Your task to perform on an android device: change the upload size in google photos Image 0: 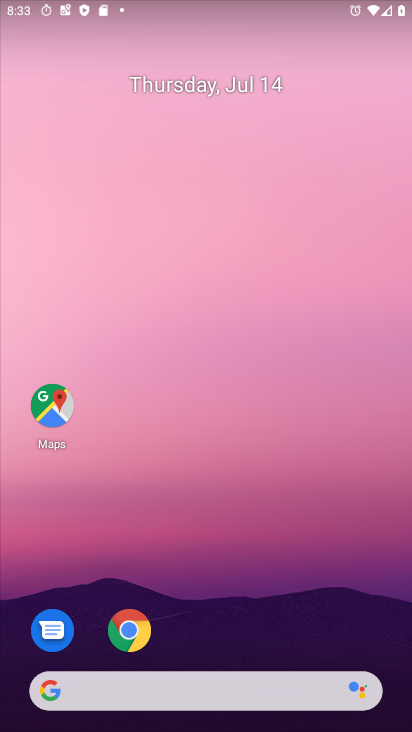
Step 0: drag from (185, 715) to (166, 169)
Your task to perform on an android device: change the upload size in google photos Image 1: 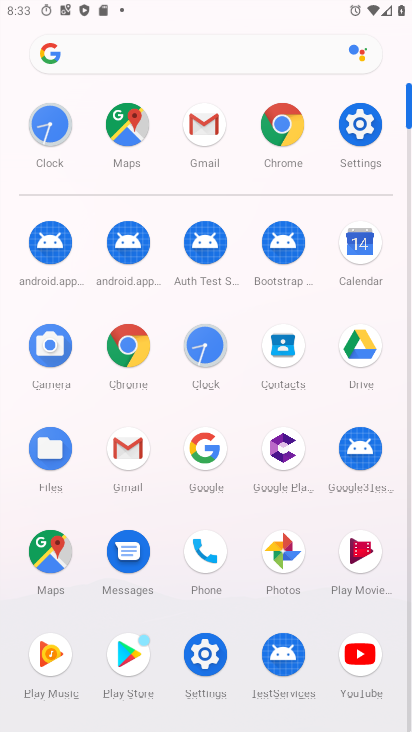
Step 1: click (290, 548)
Your task to perform on an android device: change the upload size in google photos Image 2: 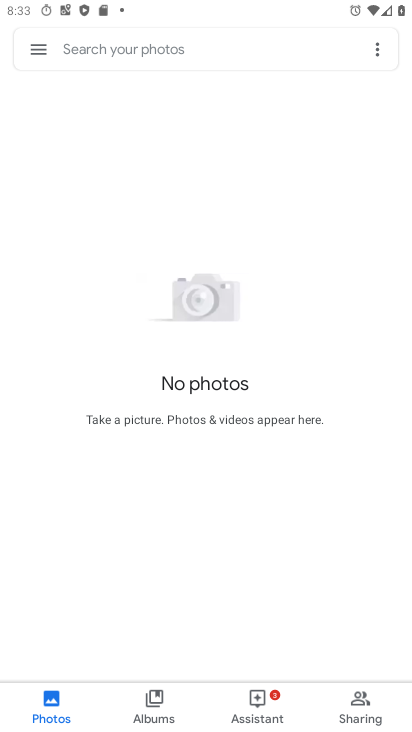
Step 2: click (32, 48)
Your task to perform on an android device: change the upload size in google photos Image 3: 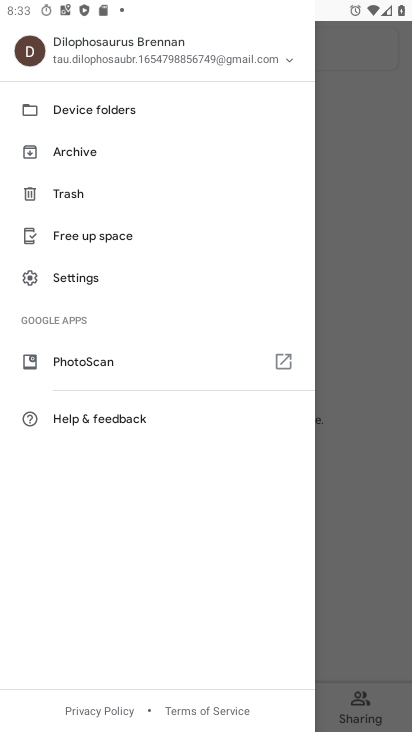
Step 3: click (83, 277)
Your task to perform on an android device: change the upload size in google photos Image 4: 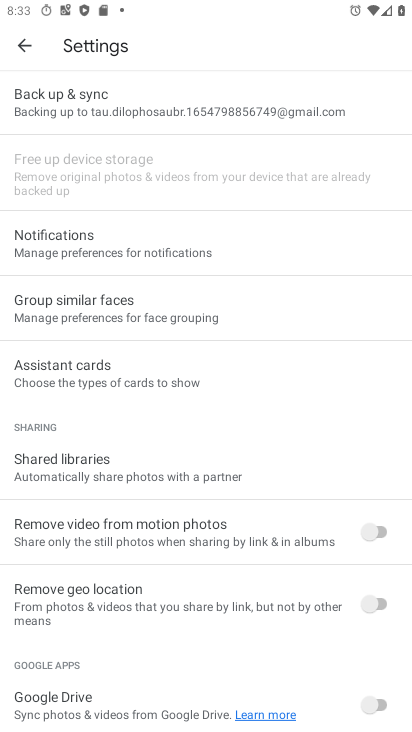
Step 4: click (102, 105)
Your task to perform on an android device: change the upload size in google photos Image 5: 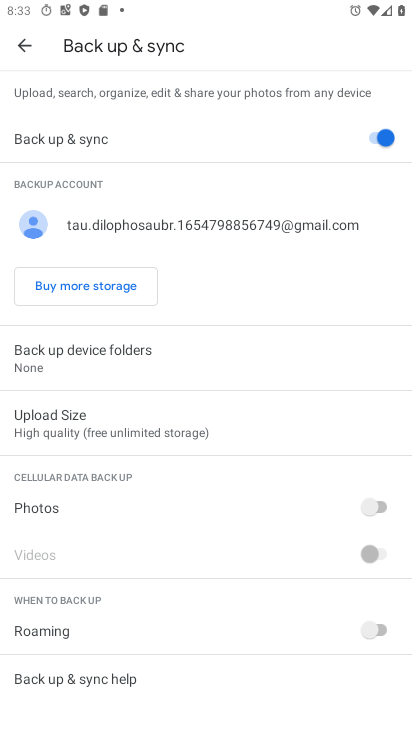
Step 5: click (63, 420)
Your task to perform on an android device: change the upload size in google photos Image 6: 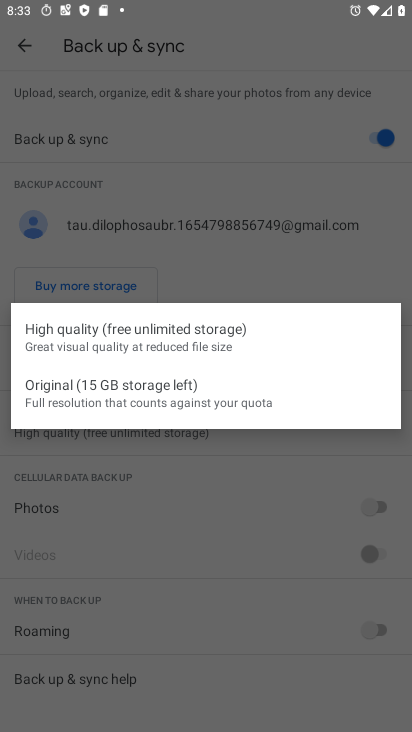
Step 6: click (60, 396)
Your task to perform on an android device: change the upload size in google photos Image 7: 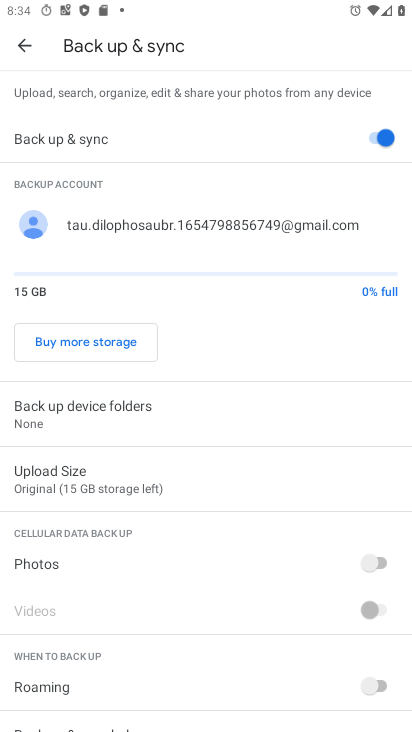
Step 7: task complete